Your task to perform on an android device: turn off location Image 0: 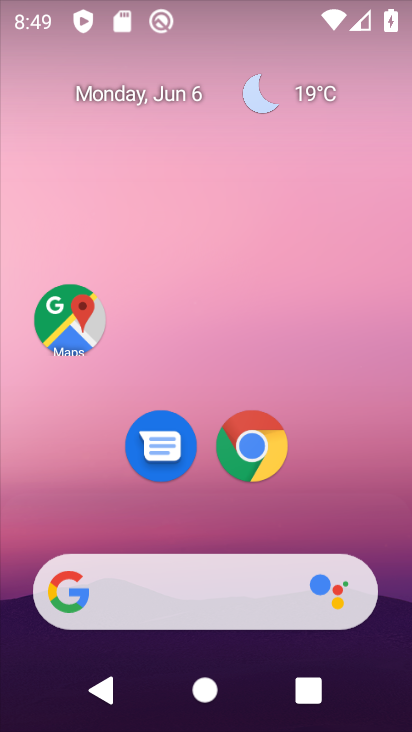
Step 0: drag from (228, 548) to (213, 257)
Your task to perform on an android device: turn off location Image 1: 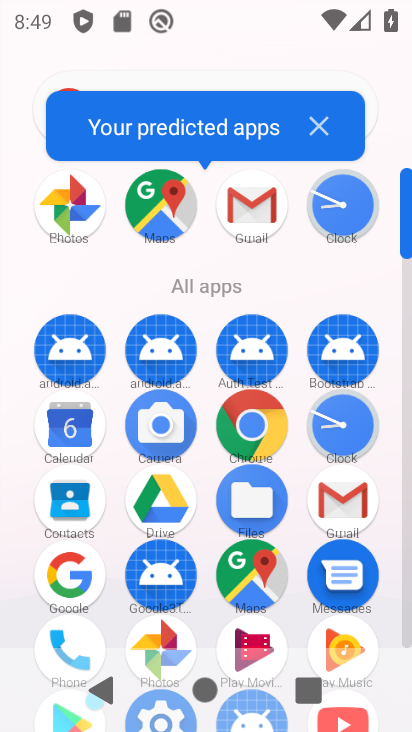
Step 1: drag from (235, 674) to (203, 405)
Your task to perform on an android device: turn off location Image 2: 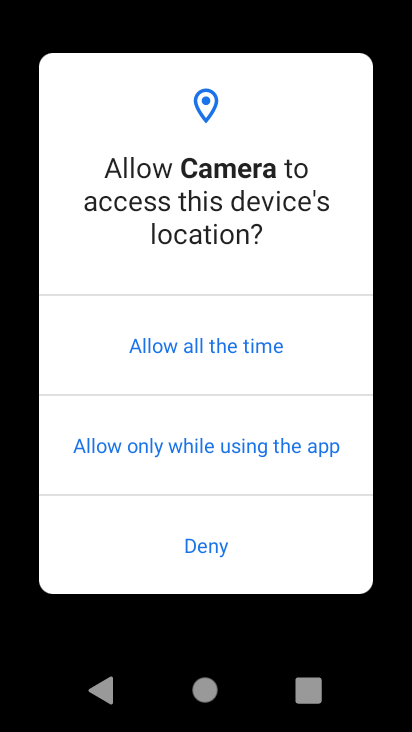
Step 2: press home button
Your task to perform on an android device: turn off location Image 3: 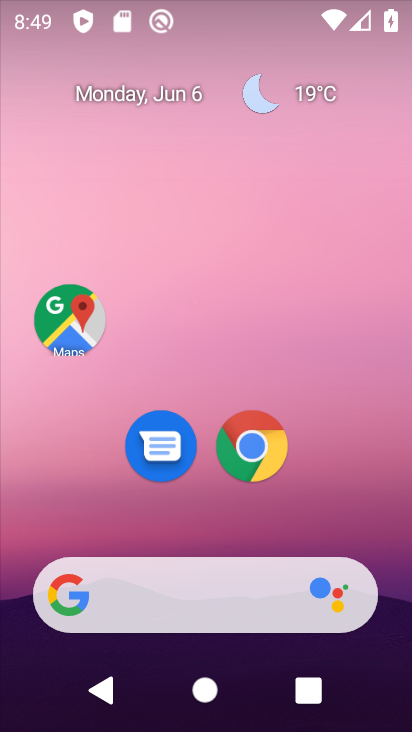
Step 3: drag from (165, 501) to (165, 282)
Your task to perform on an android device: turn off location Image 4: 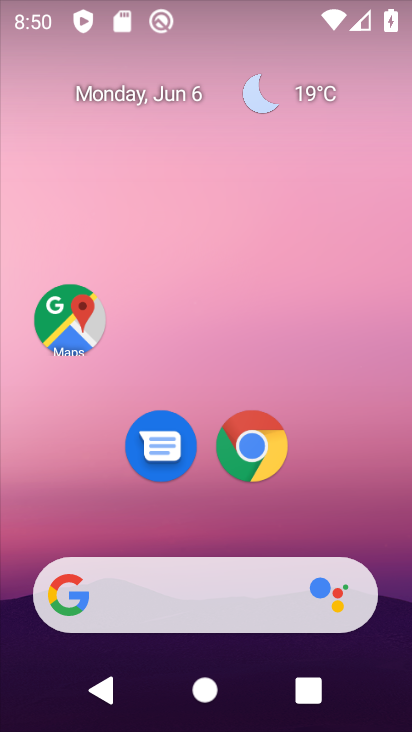
Step 4: drag from (194, 534) to (190, 187)
Your task to perform on an android device: turn off location Image 5: 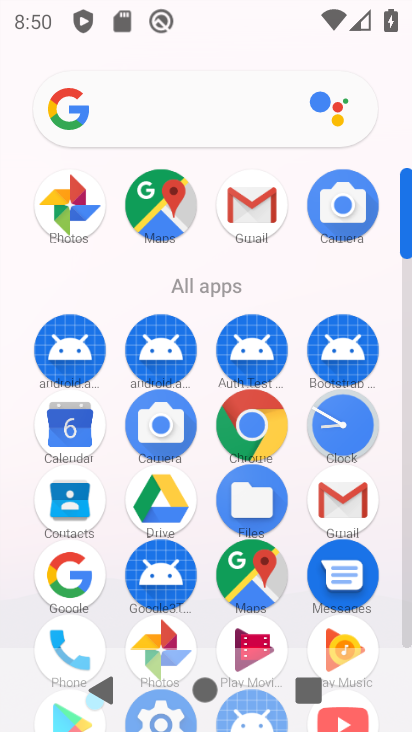
Step 5: drag from (250, 516) to (246, 172)
Your task to perform on an android device: turn off location Image 6: 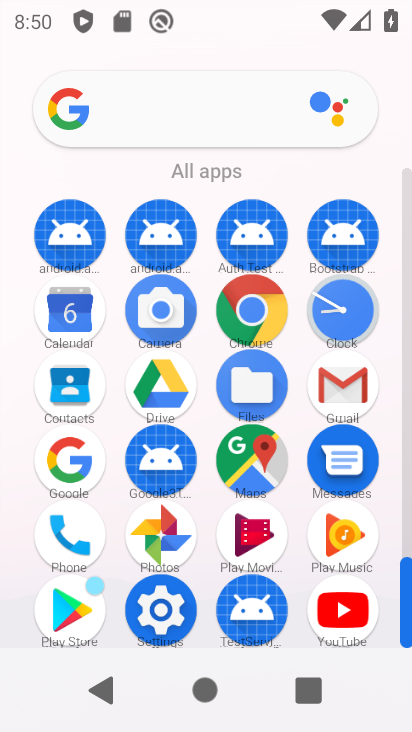
Step 6: click (160, 617)
Your task to perform on an android device: turn off location Image 7: 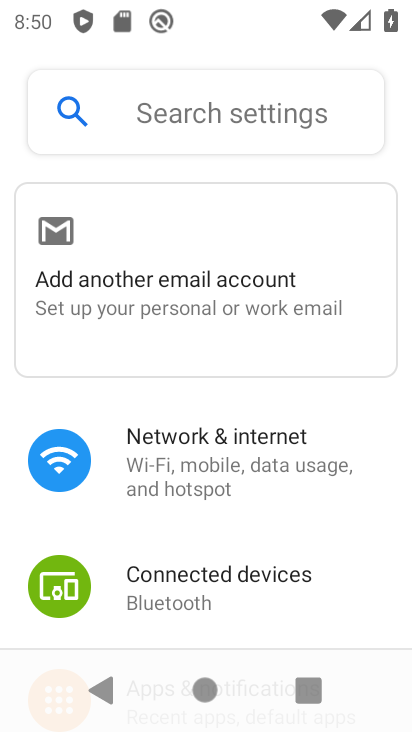
Step 7: drag from (191, 608) to (188, 331)
Your task to perform on an android device: turn off location Image 8: 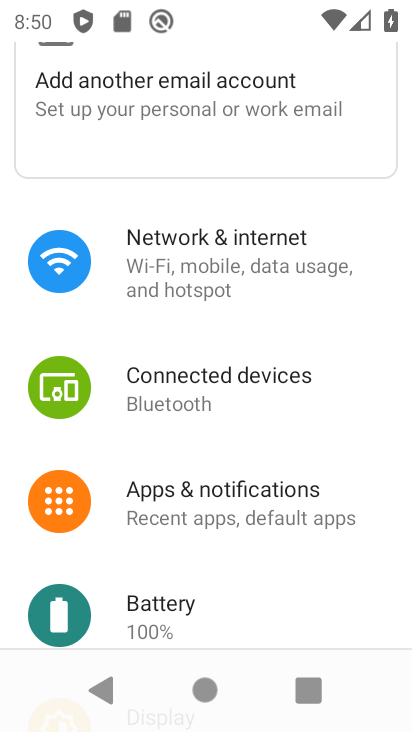
Step 8: drag from (246, 593) to (246, 368)
Your task to perform on an android device: turn off location Image 9: 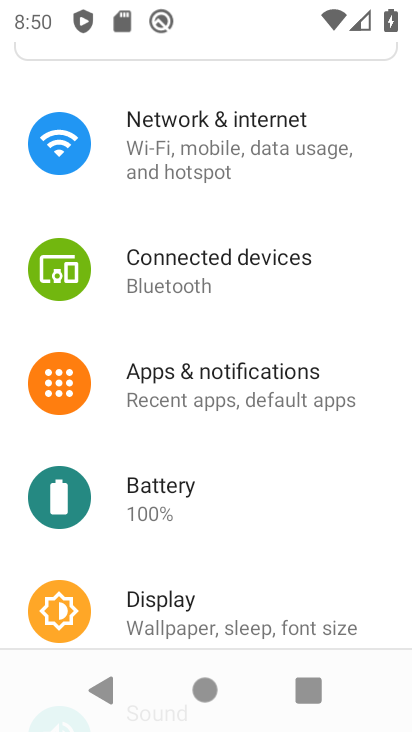
Step 9: drag from (273, 634) to (274, 341)
Your task to perform on an android device: turn off location Image 10: 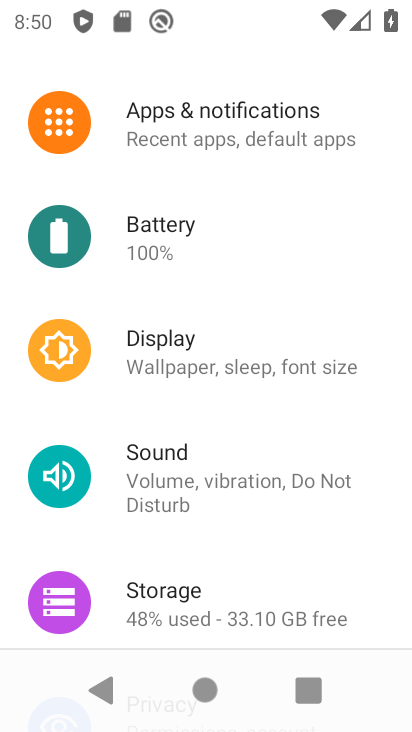
Step 10: drag from (226, 566) to (226, 301)
Your task to perform on an android device: turn off location Image 11: 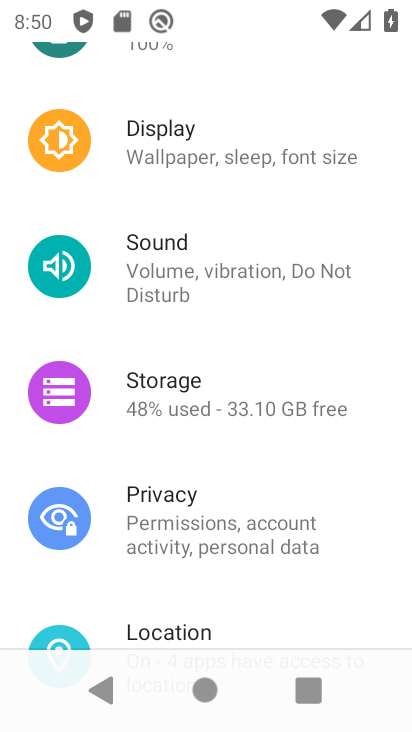
Step 11: click (188, 631)
Your task to perform on an android device: turn off location Image 12: 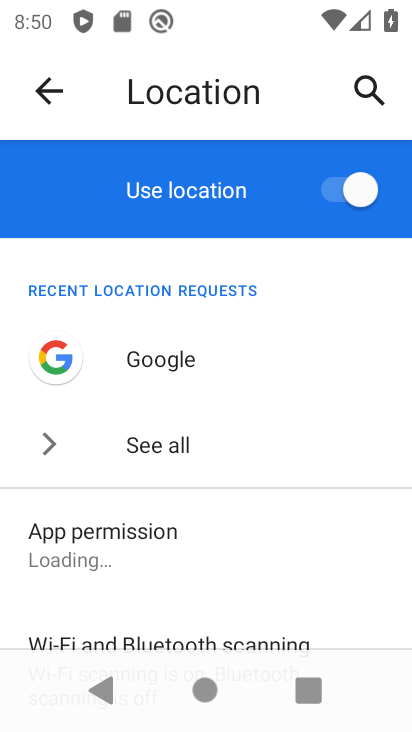
Step 12: click (330, 201)
Your task to perform on an android device: turn off location Image 13: 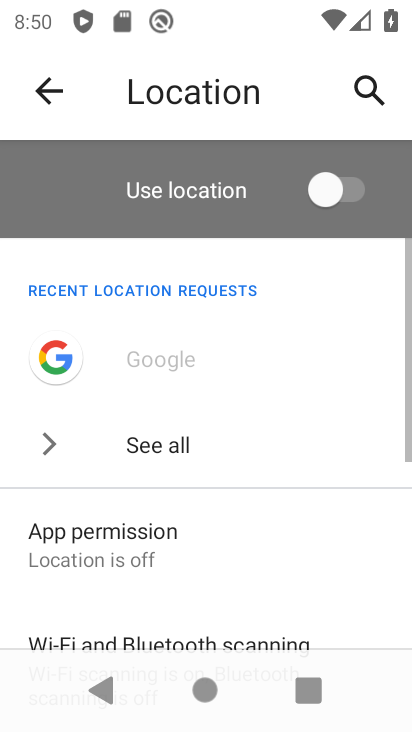
Step 13: task complete